Your task to perform on an android device: install app "Roku - Official Remote Control" Image 0: 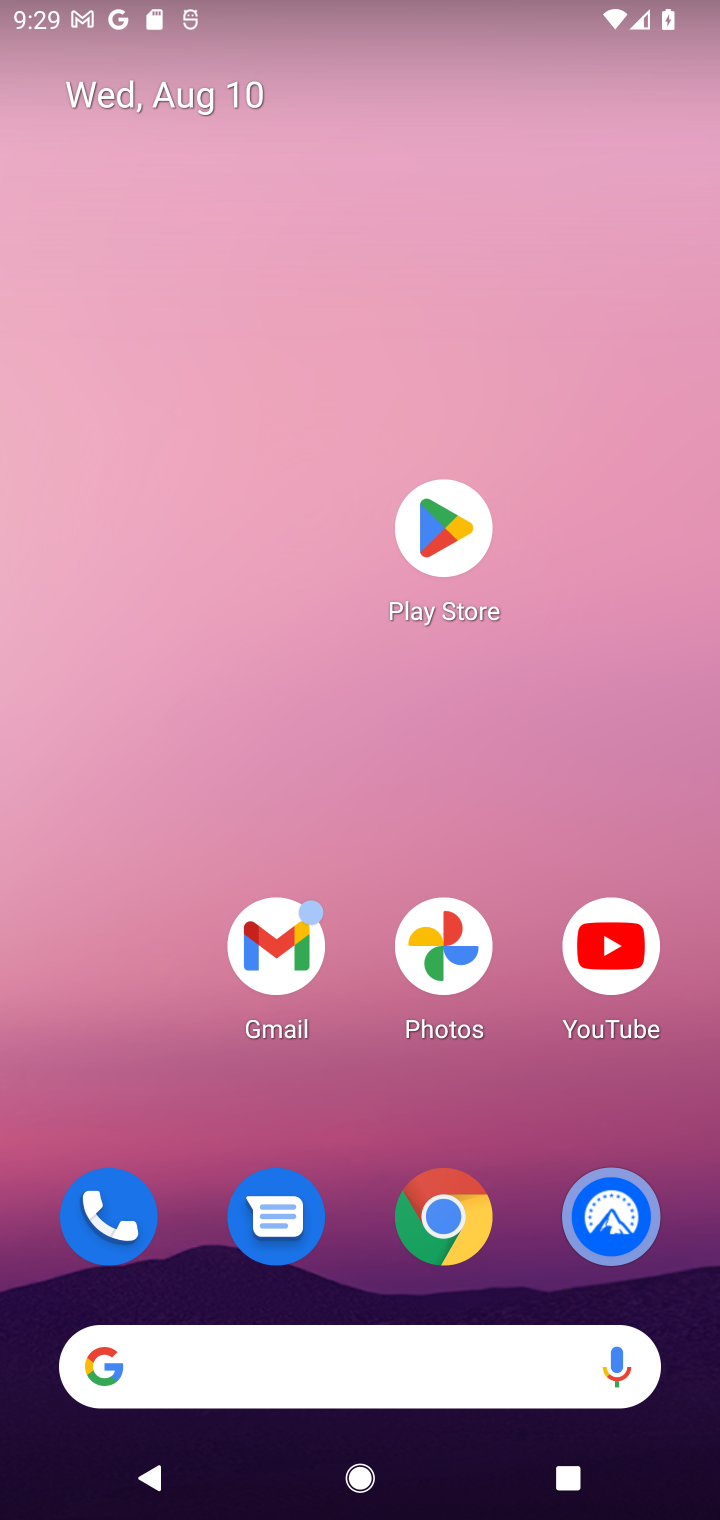
Step 0: click (444, 535)
Your task to perform on an android device: install app "Roku - Official Remote Control" Image 1: 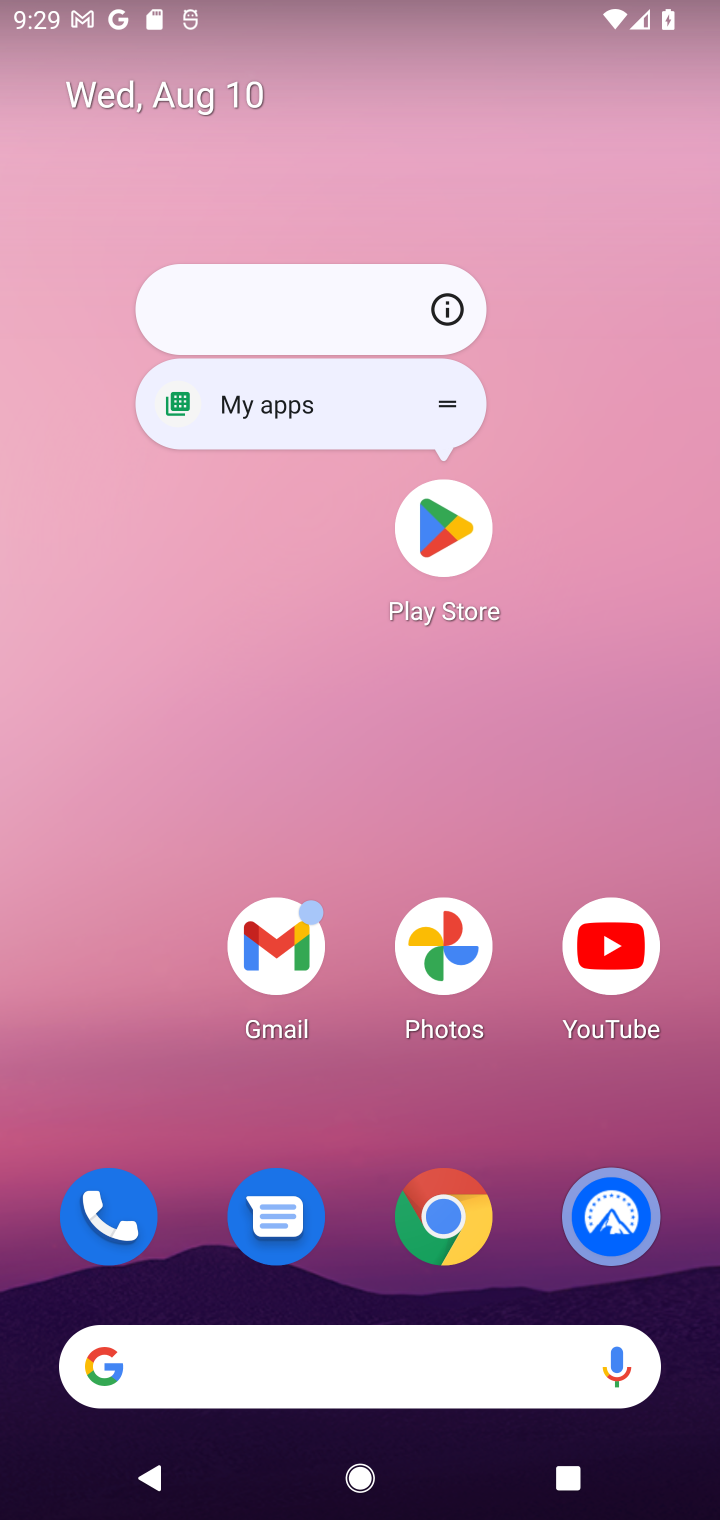
Step 1: click (444, 537)
Your task to perform on an android device: install app "Roku - Official Remote Control" Image 2: 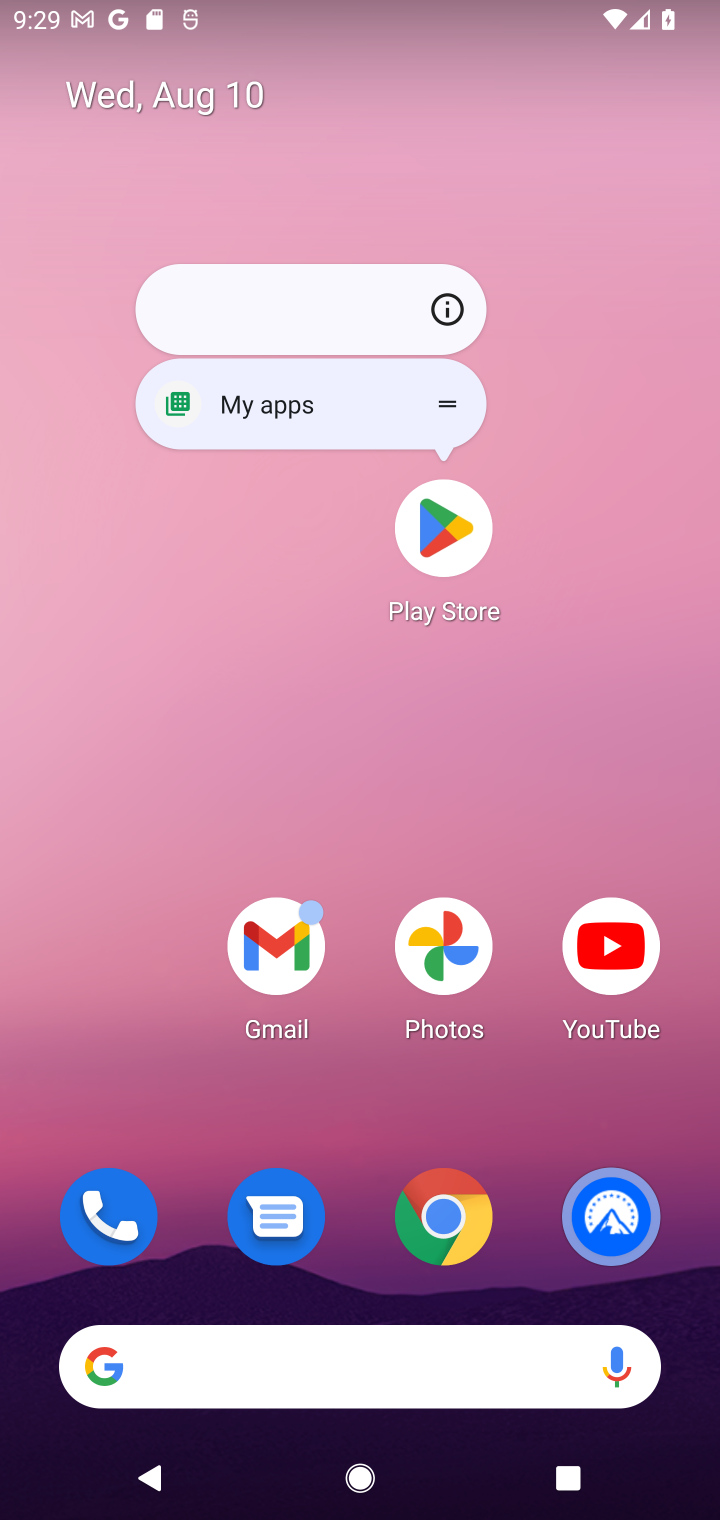
Step 2: click (444, 535)
Your task to perform on an android device: install app "Roku - Official Remote Control" Image 3: 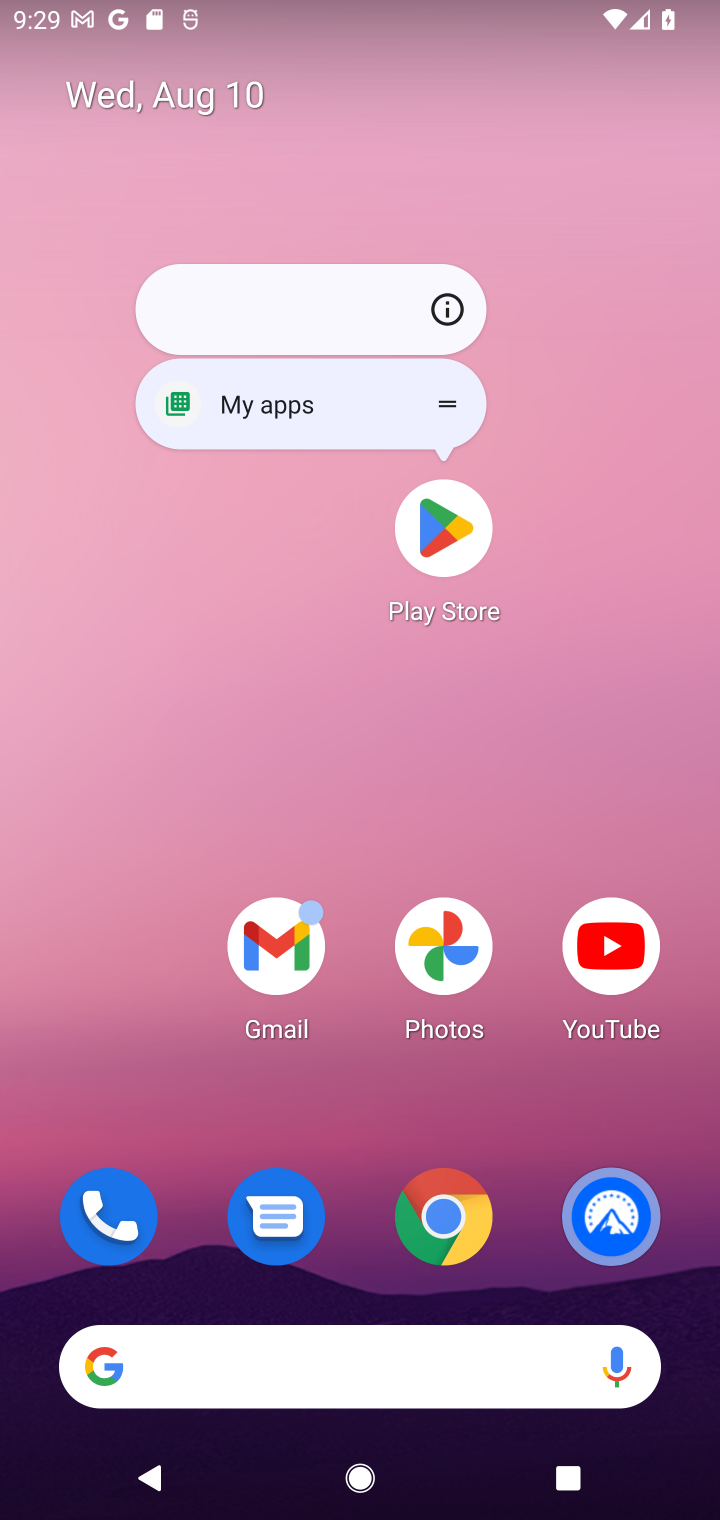
Step 3: click (444, 537)
Your task to perform on an android device: install app "Roku - Official Remote Control" Image 4: 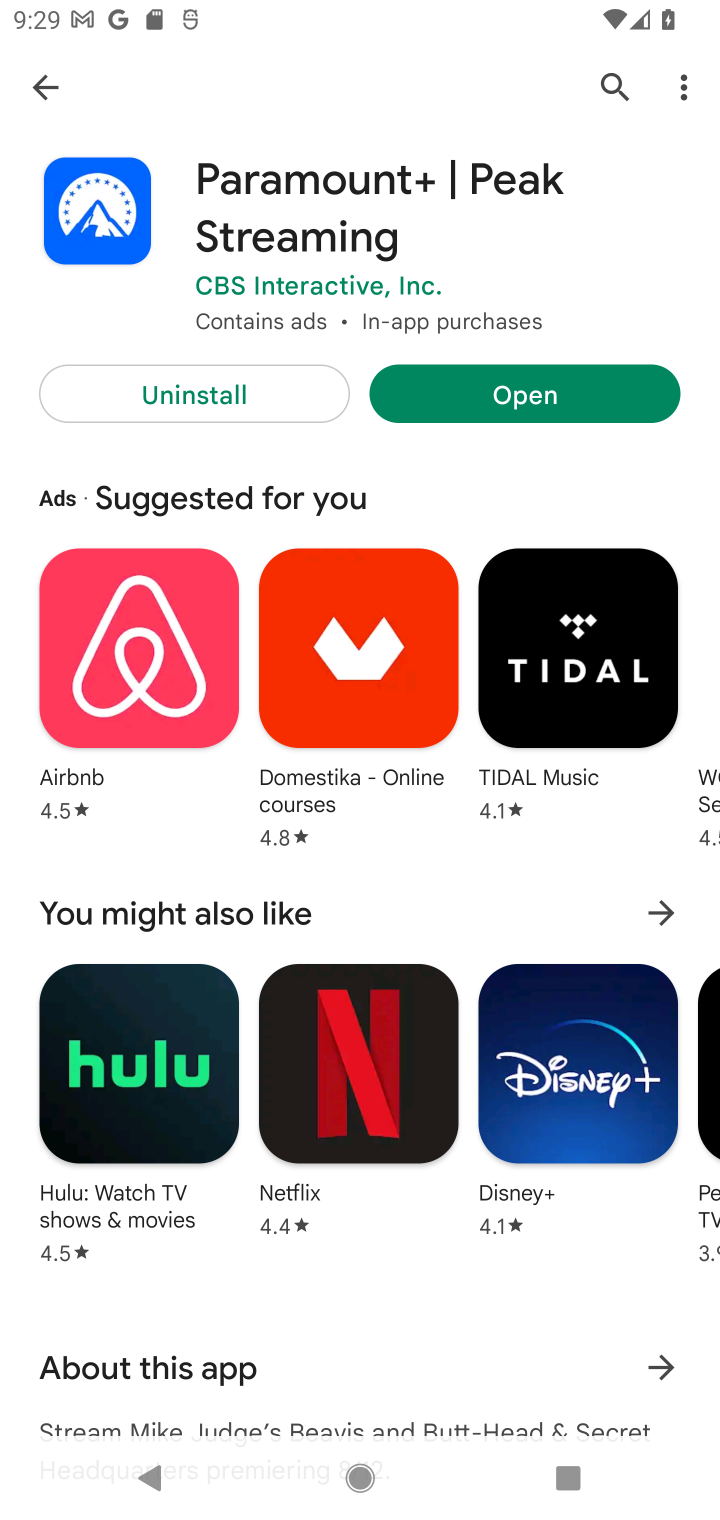
Step 4: click (606, 87)
Your task to perform on an android device: install app "Roku - Official Remote Control" Image 5: 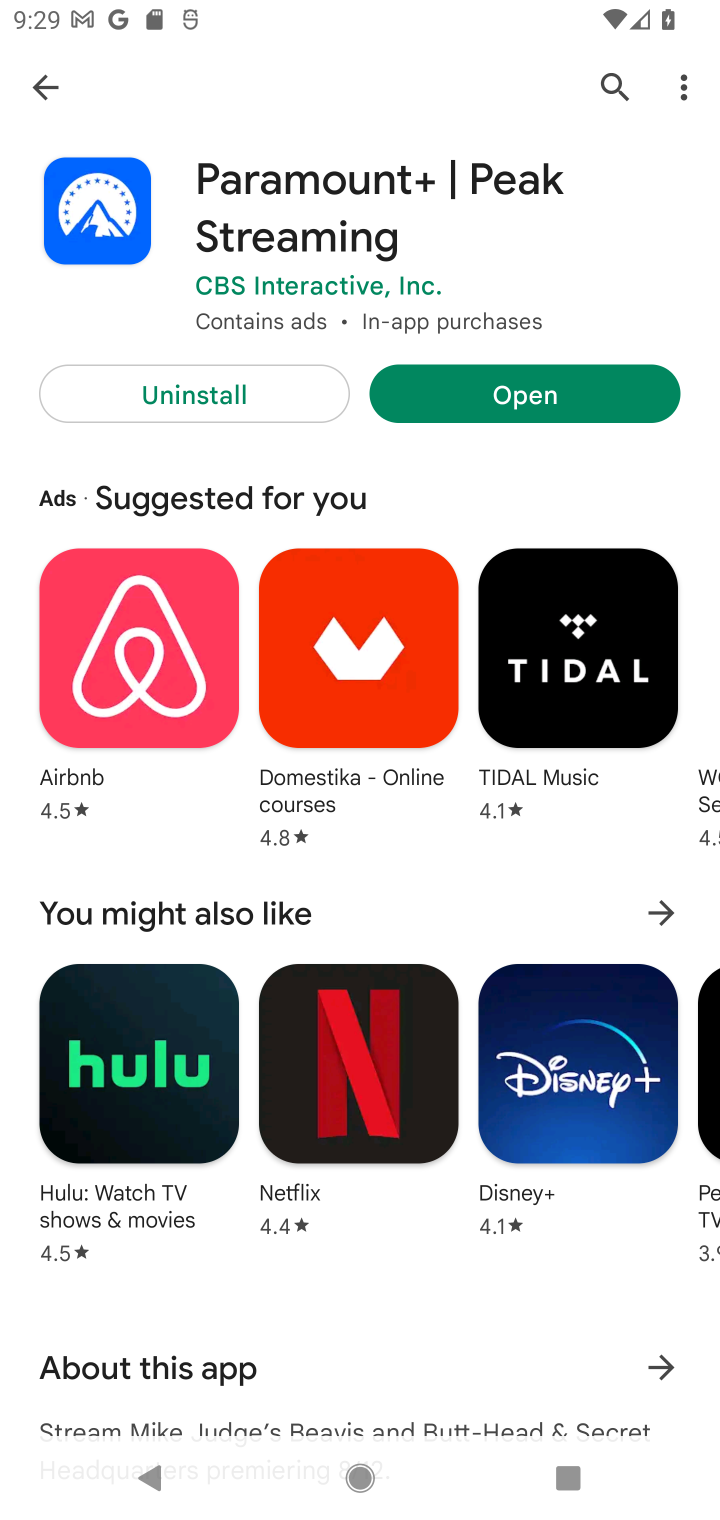
Step 5: click (621, 75)
Your task to perform on an android device: install app "Roku - Official Remote Control" Image 6: 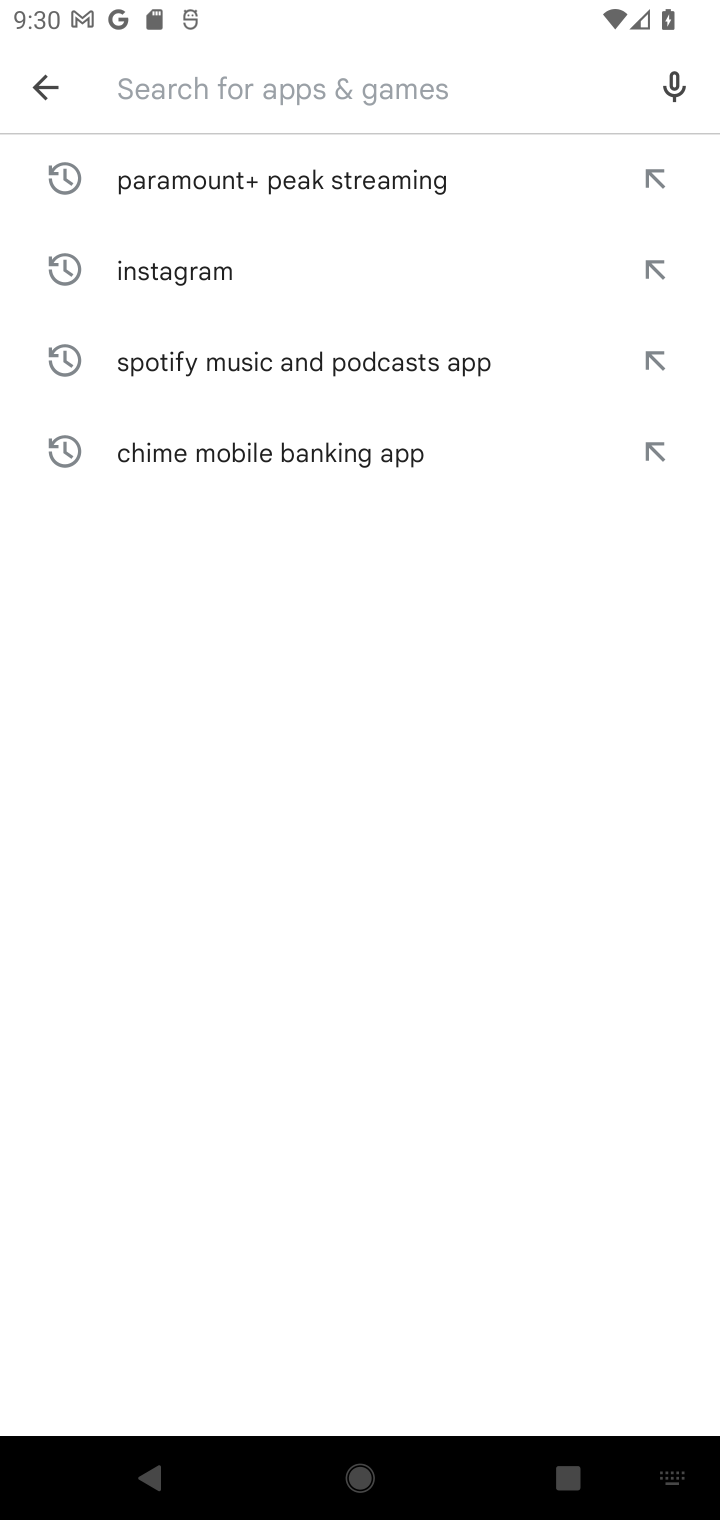
Step 6: type "Roku - Official Remote Control"
Your task to perform on an android device: install app "Roku - Official Remote Control" Image 7: 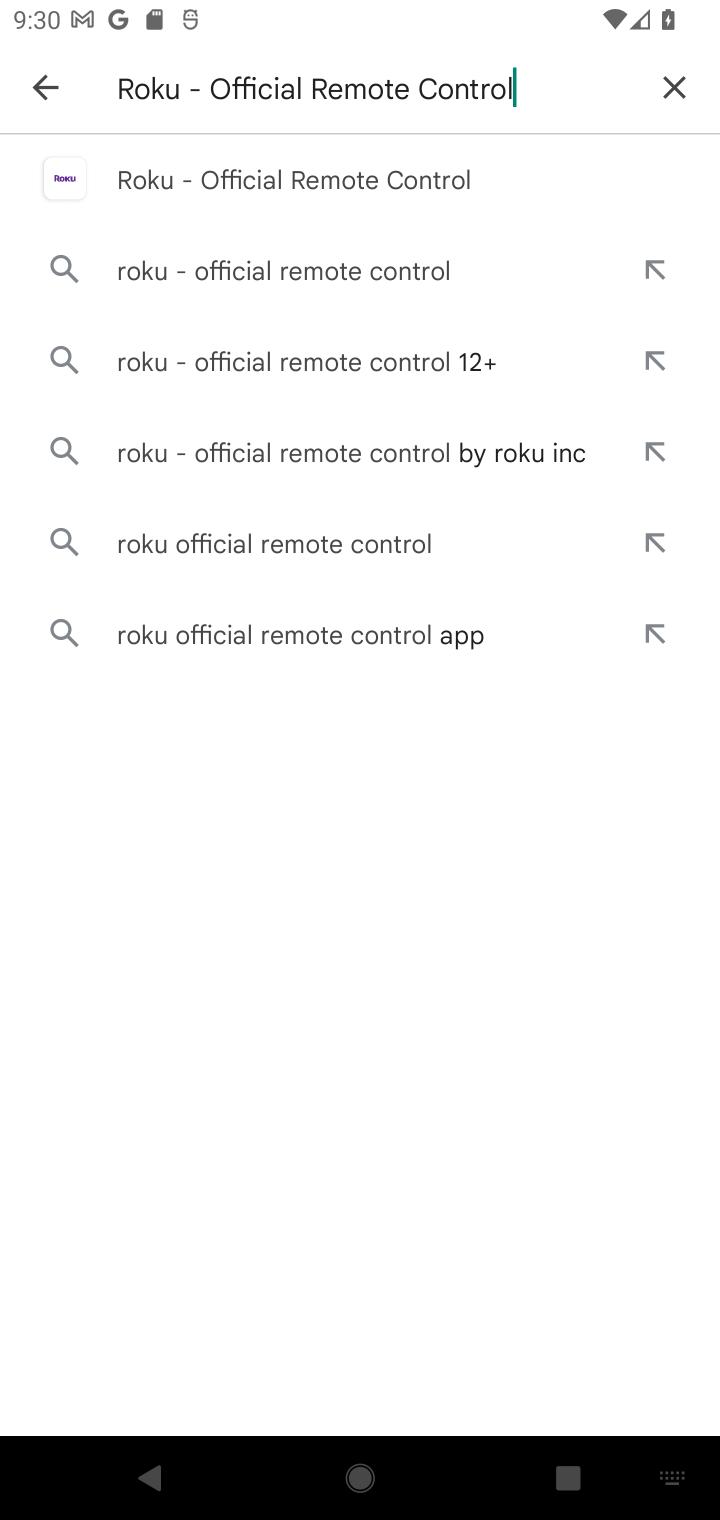
Step 7: click (332, 191)
Your task to perform on an android device: install app "Roku - Official Remote Control" Image 8: 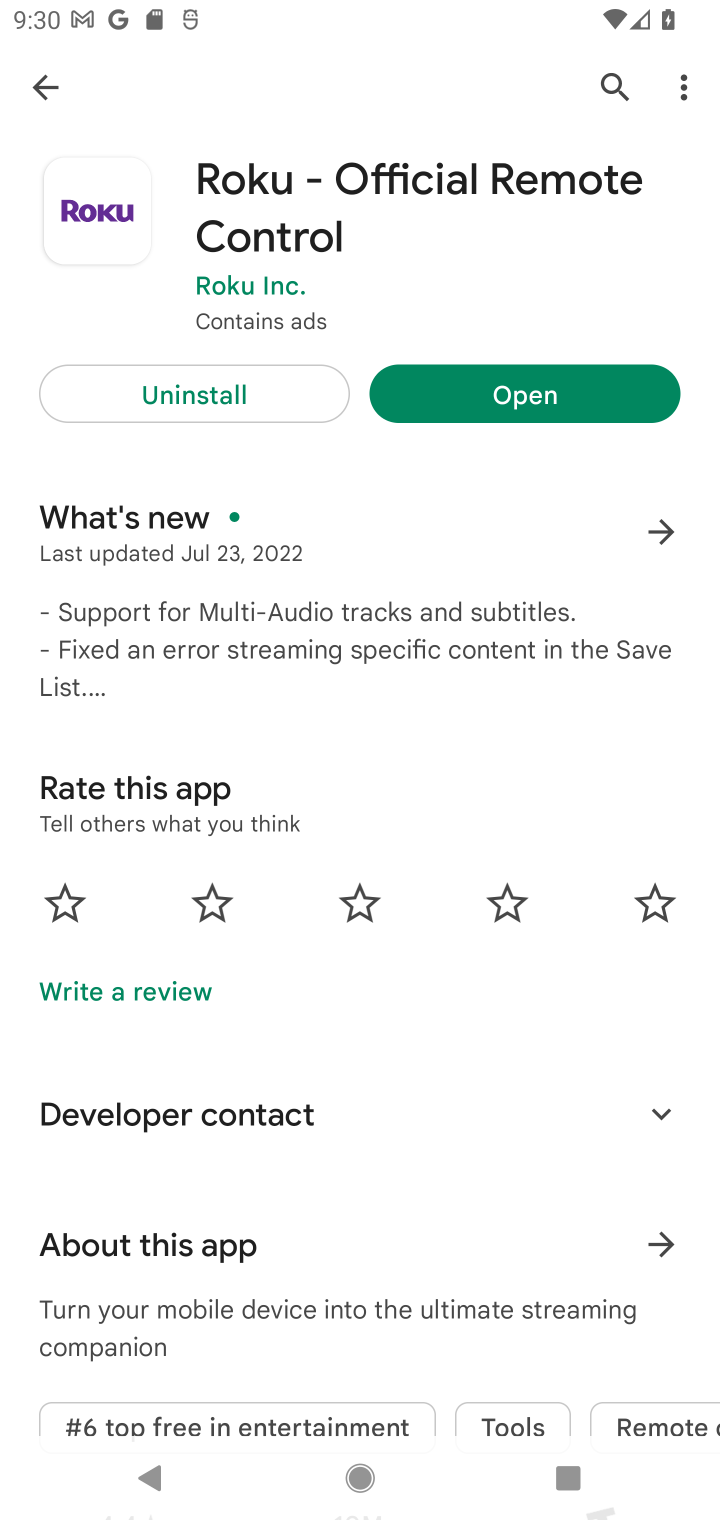
Step 8: task complete